Your task to perform on an android device: Open privacy settings Image 0: 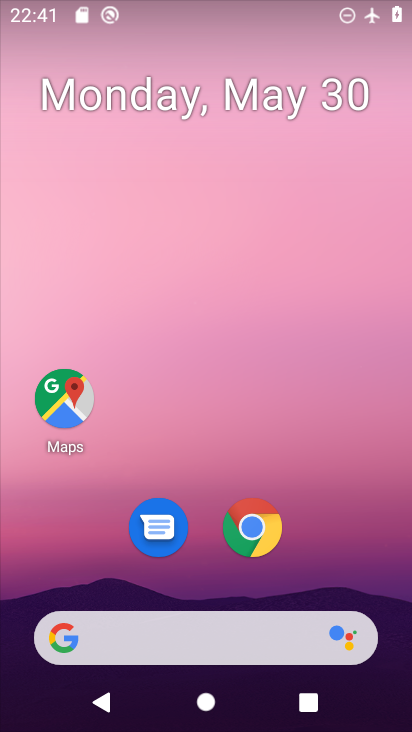
Step 0: drag from (333, 552) to (352, 205)
Your task to perform on an android device: Open privacy settings Image 1: 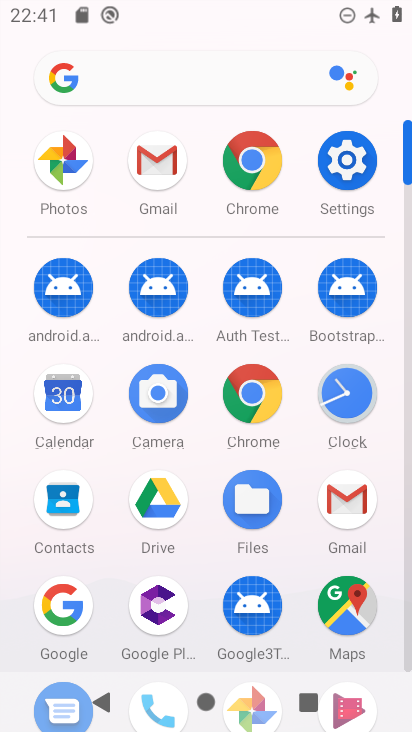
Step 1: click (337, 147)
Your task to perform on an android device: Open privacy settings Image 2: 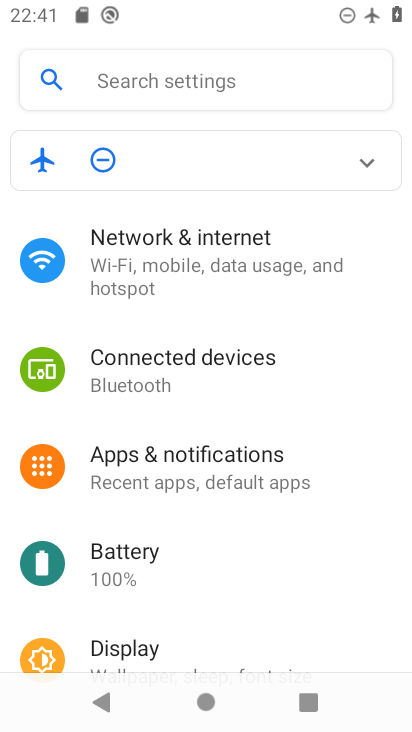
Step 2: drag from (214, 581) to (259, 261)
Your task to perform on an android device: Open privacy settings Image 3: 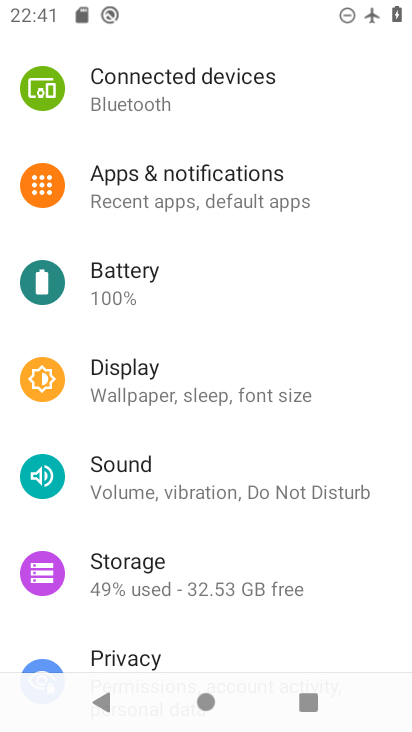
Step 3: drag from (205, 558) to (300, 238)
Your task to perform on an android device: Open privacy settings Image 4: 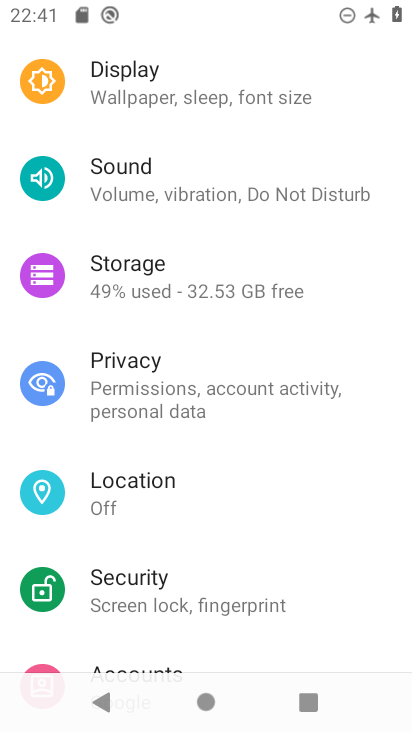
Step 4: click (164, 382)
Your task to perform on an android device: Open privacy settings Image 5: 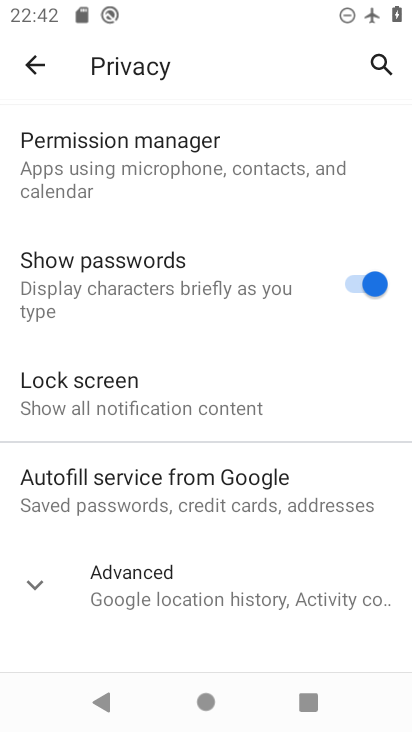
Step 5: task complete